Your task to perform on an android device: Open Google Maps and go to "Timeline" Image 0: 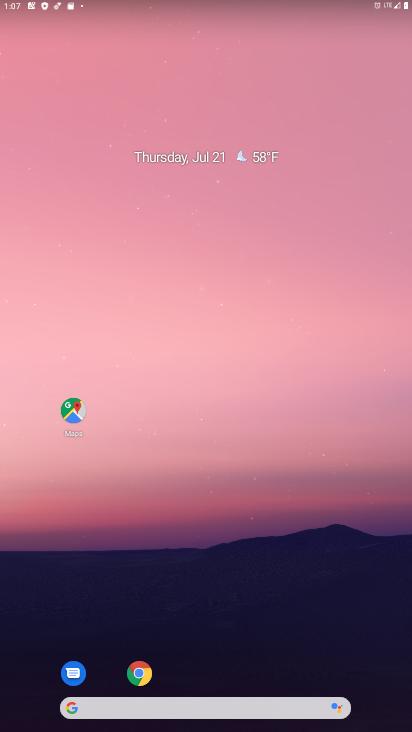
Step 0: drag from (165, 666) to (187, 303)
Your task to perform on an android device: Open Google Maps and go to "Timeline" Image 1: 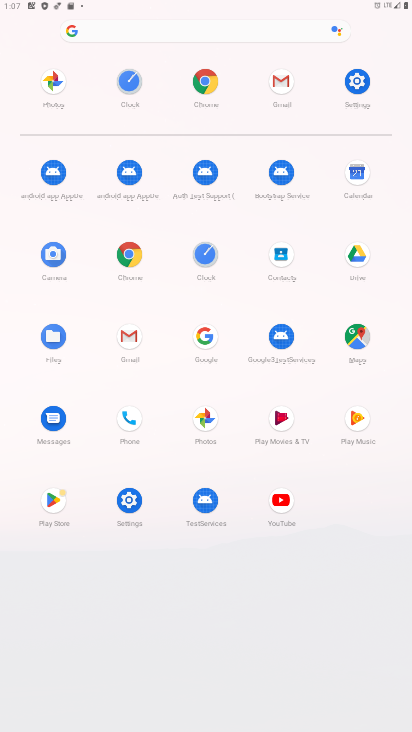
Step 1: click (361, 338)
Your task to perform on an android device: Open Google Maps and go to "Timeline" Image 2: 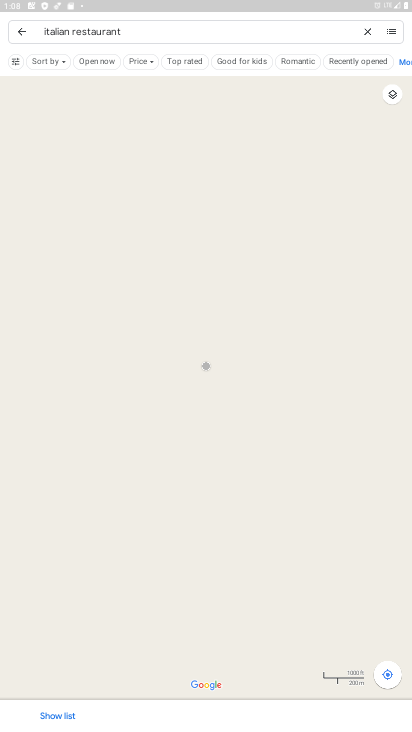
Step 2: click (16, 28)
Your task to perform on an android device: Open Google Maps and go to "Timeline" Image 3: 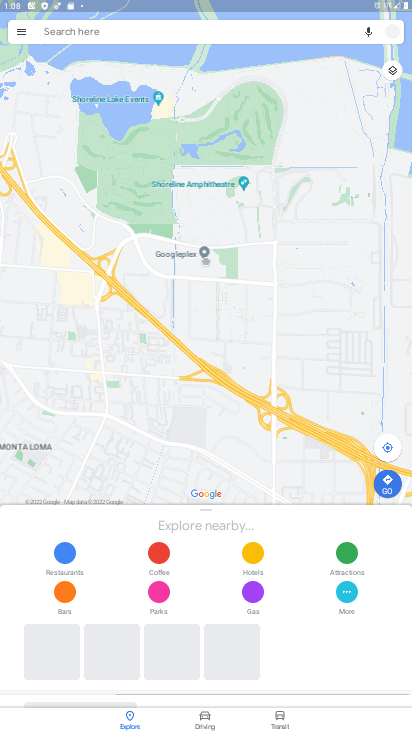
Step 3: click (19, 31)
Your task to perform on an android device: Open Google Maps and go to "Timeline" Image 4: 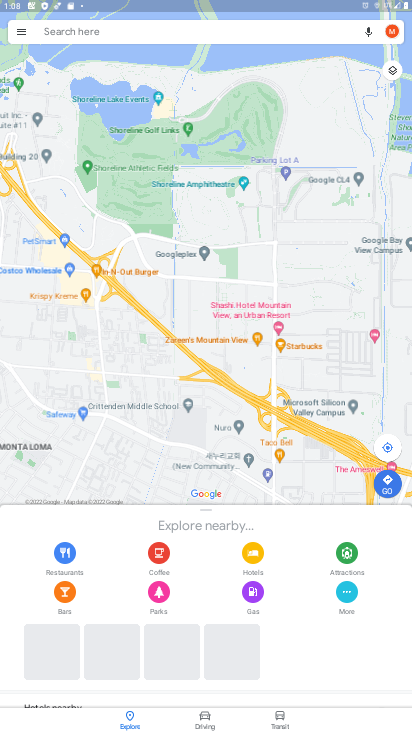
Step 4: click (20, 26)
Your task to perform on an android device: Open Google Maps and go to "Timeline" Image 5: 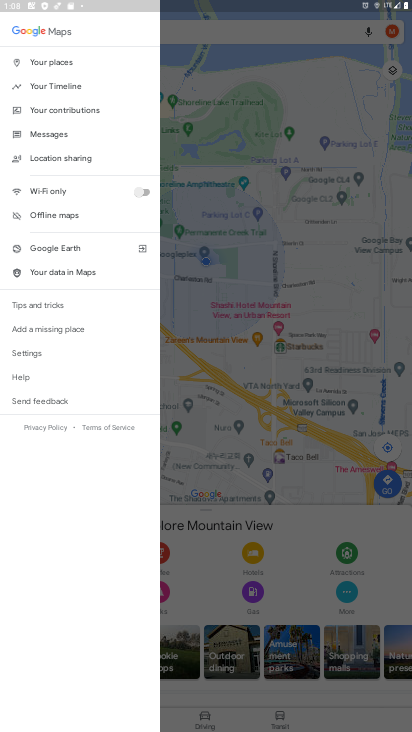
Step 5: click (51, 90)
Your task to perform on an android device: Open Google Maps and go to "Timeline" Image 6: 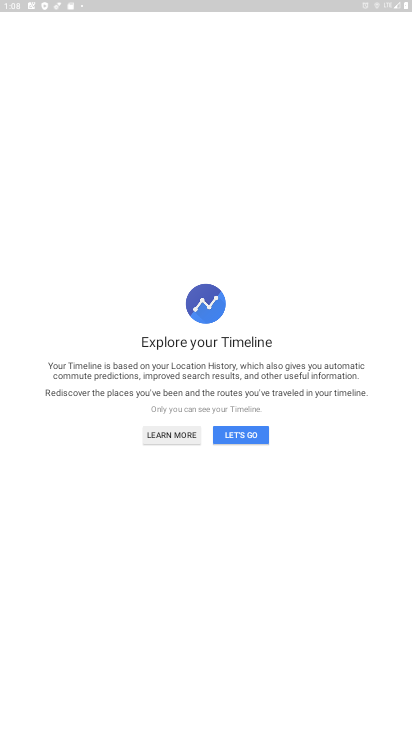
Step 6: click (231, 430)
Your task to perform on an android device: Open Google Maps and go to "Timeline" Image 7: 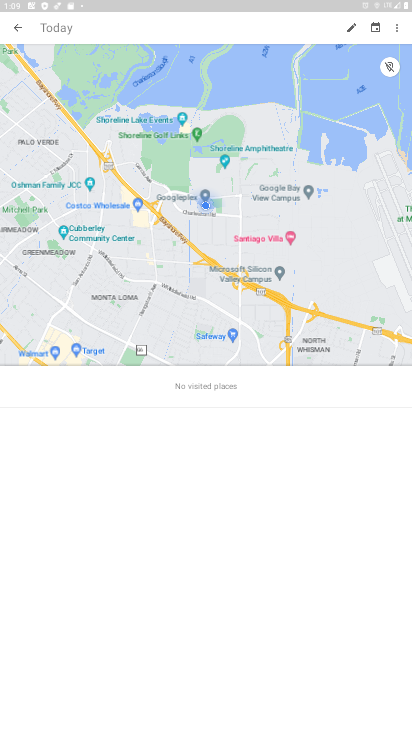
Step 7: task complete